Your task to perform on an android device: turn on bluetooth scan Image 0: 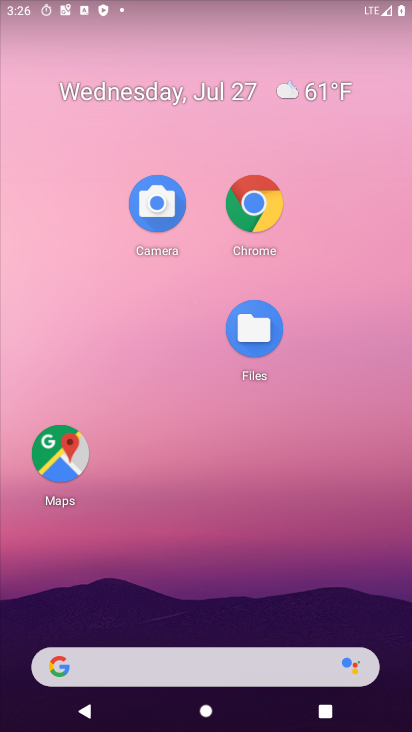
Step 0: drag from (200, 609) to (248, 160)
Your task to perform on an android device: turn on bluetooth scan Image 1: 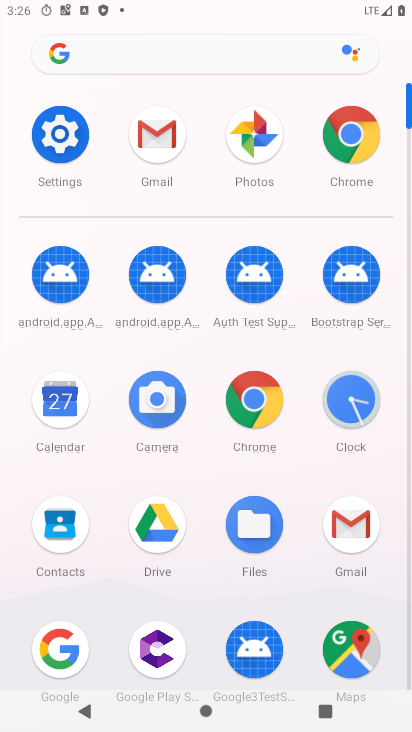
Step 1: click (76, 144)
Your task to perform on an android device: turn on bluetooth scan Image 2: 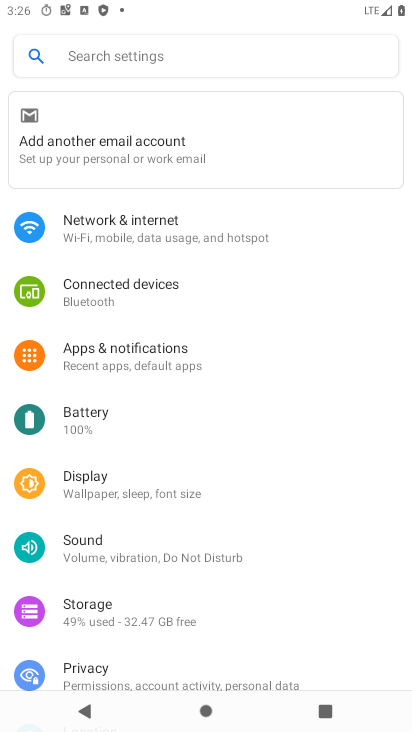
Step 2: drag from (117, 662) to (174, 314)
Your task to perform on an android device: turn on bluetooth scan Image 3: 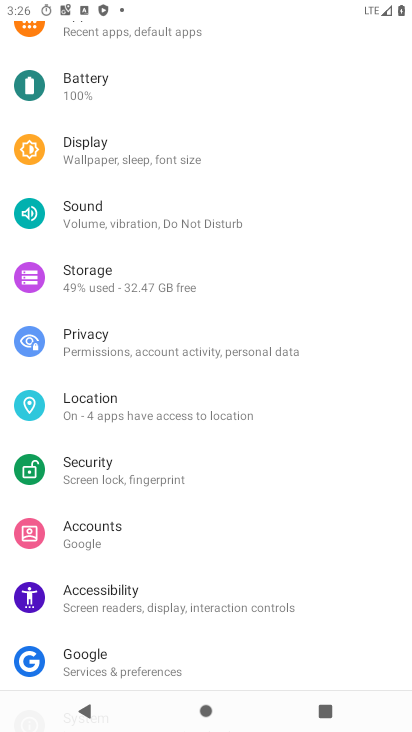
Step 3: click (88, 420)
Your task to perform on an android device: turn on bluetooth scan Image 4: 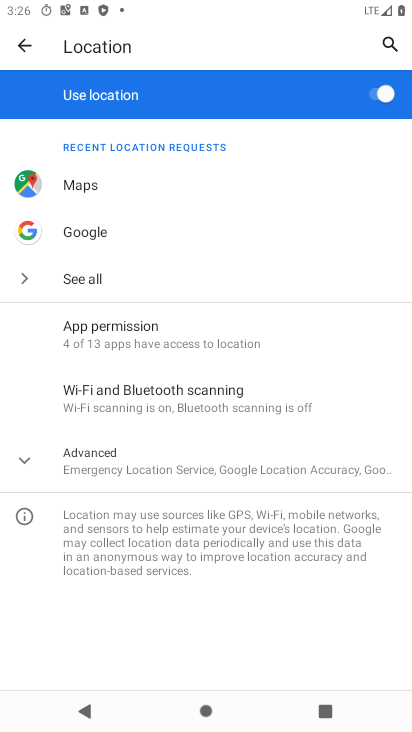
Step 4: click (165, 400)
Your task to perform on an android device: turn on bluetooth scan Image 5: 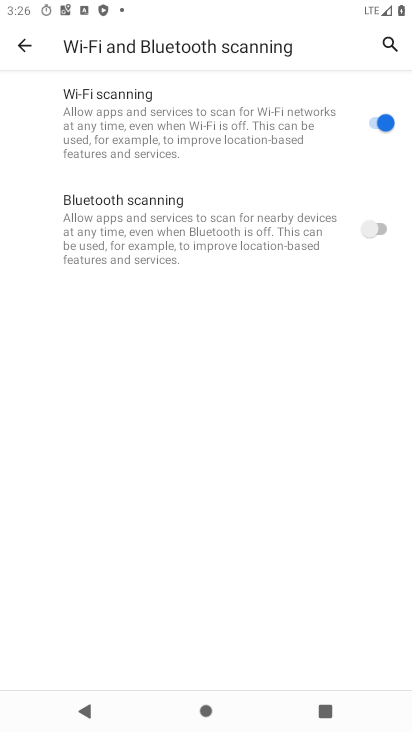
Step 5: click (383, 224)
Your task to perform on an android device: turn on bluetooth scan Image 6: 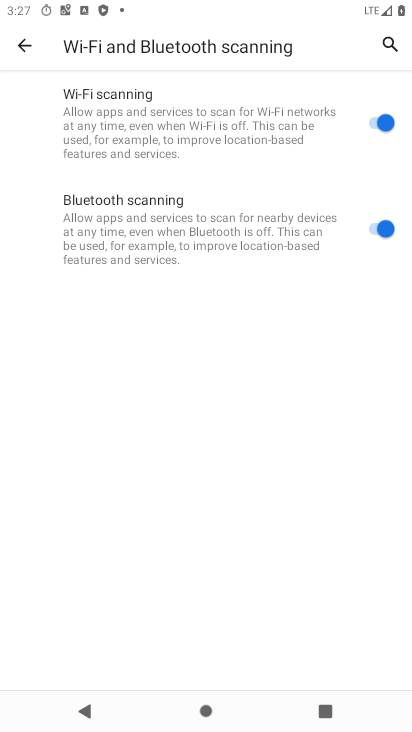
Step 6: task complete